Your task to perform on an android device: Go to Amazon Image 0: 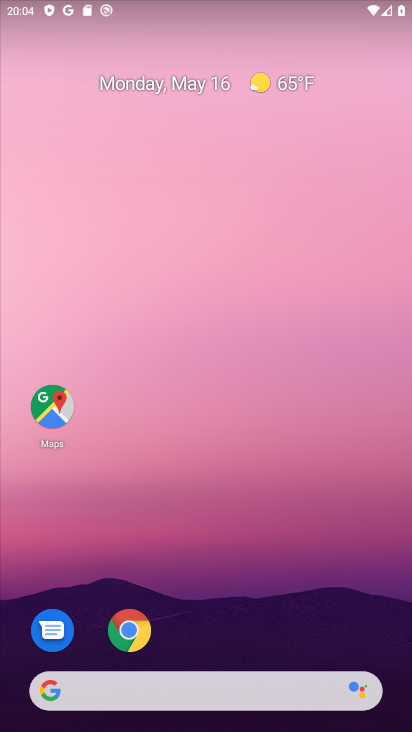
Step 0: click (136, 609)
Your task to perform on an android device: Go to Amazon Image 1: 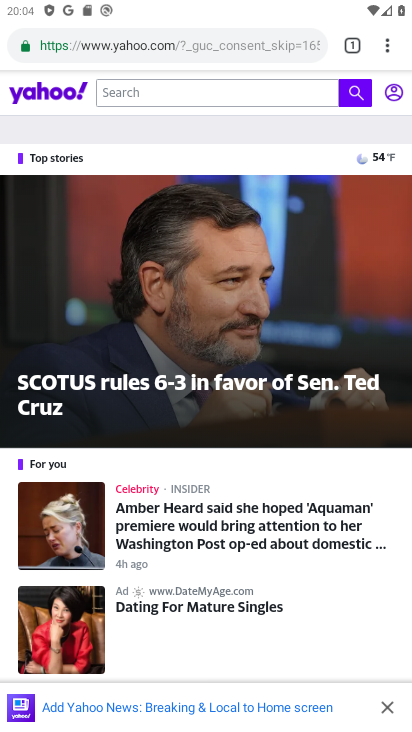
Step 1: click (359, 47)
Your task to perform on an android device: Go to Amazon Image 2: 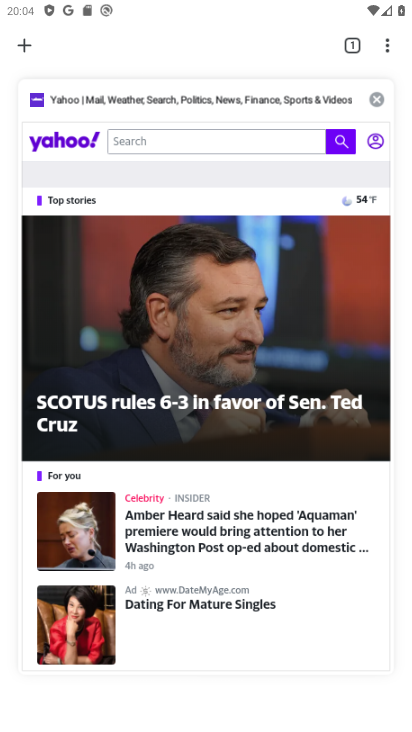
Step 2: click (28, 39)
Your task to perform on an android device: Go to Amazon Image 3: 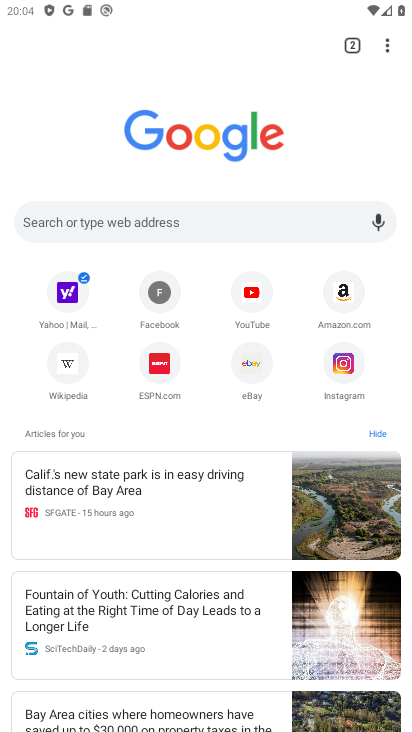
Step 3: click (338, 281)
Your task to perform on an android device: Go to Amazon Image 4: 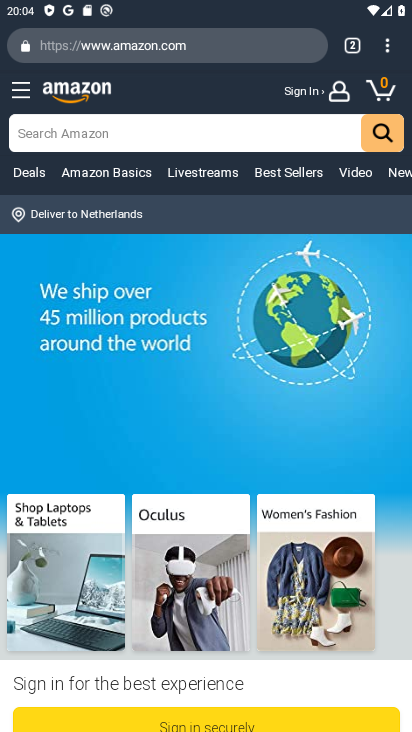
Step 4: task complete